Your task to perform on an android device: Open Google Chrome Image 0: 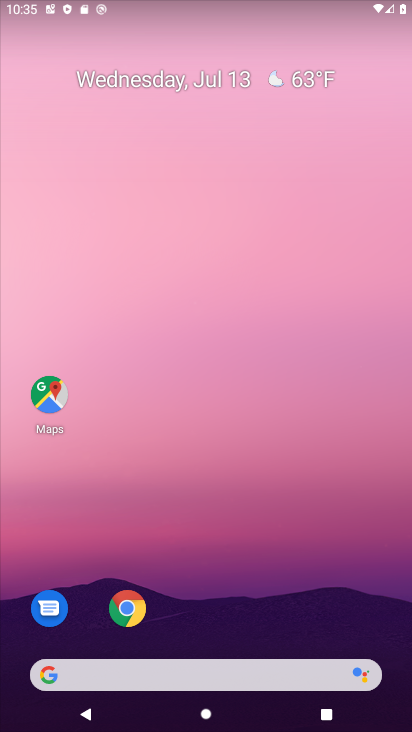
Step 0: press home button
Your task to perform on an android device: Open Google Chrome Image 1: 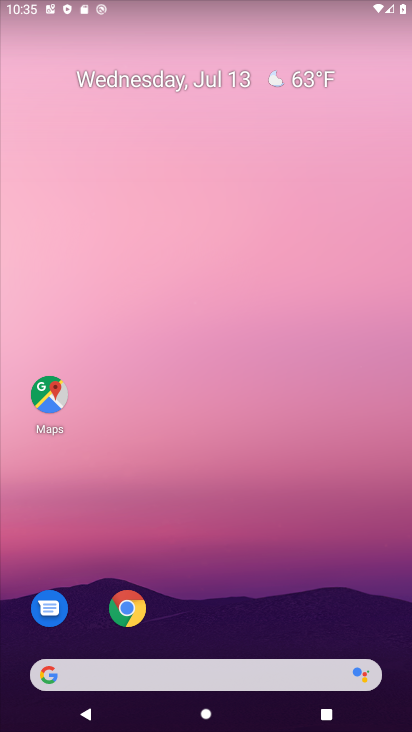
Step 1: click (128, 612)
Your task to perform on an android device: Open Google Chrome Image 2: 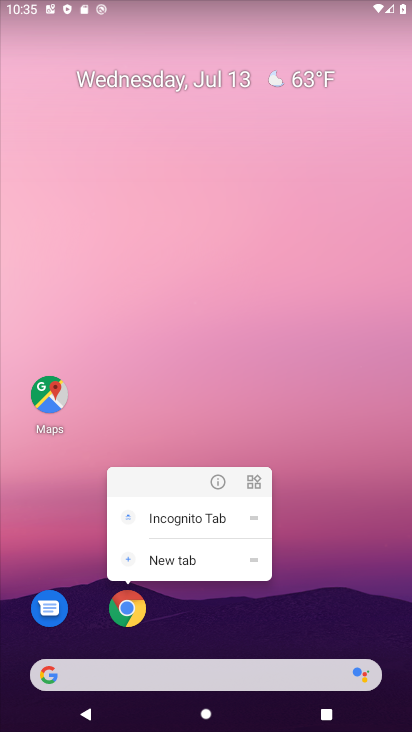
Step 2: click (128, 612)
Your task to perform on an android device: Open Google Chrome Image 3: 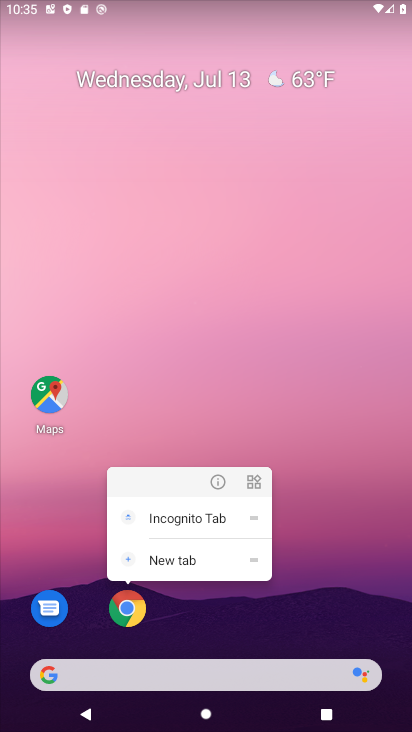
Step 3: click (128, 612)
Your task to perform on an android device: Open Google Chrome Image 4: 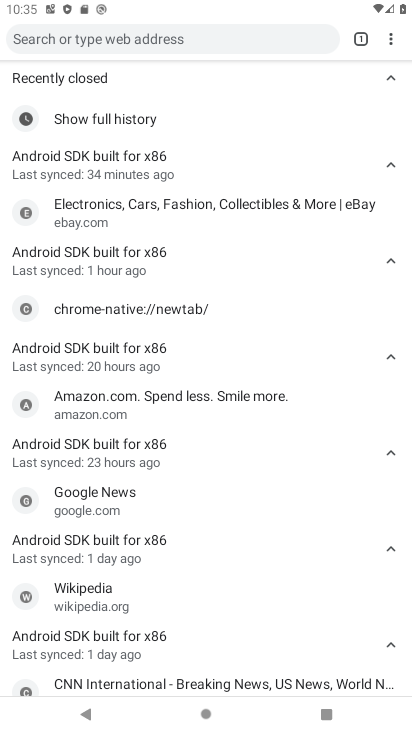
Step 4: click (362, 39)
Your task to perform on an android device: Open Google Chrome Image 5: 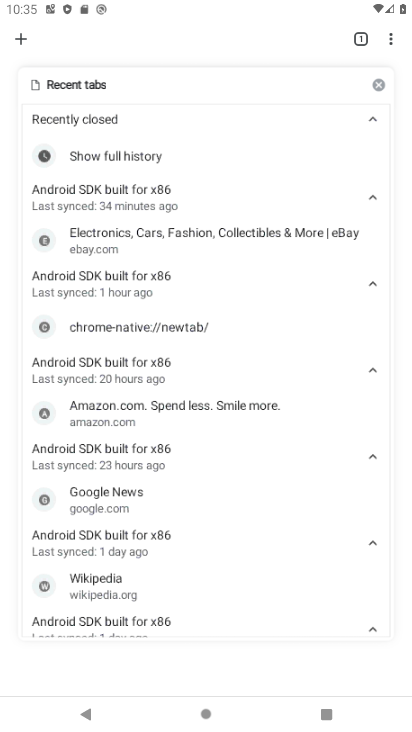
Step 5: click (24, 40)
Your task to perform on an android device: Open Google Chrome Image 6: 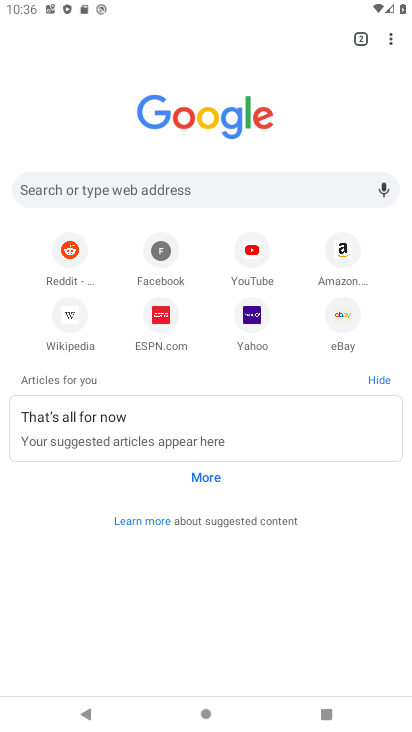
Step 6: task complete